Your task to perform on an android device: Show me the alarms in the clock app Image 0: 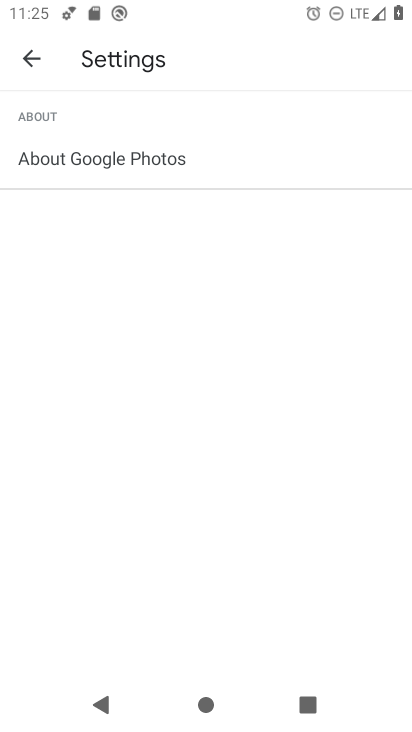
Step 0: press home button
Your task to perform on an android device: Show me the alarms in the clock app Image 1: 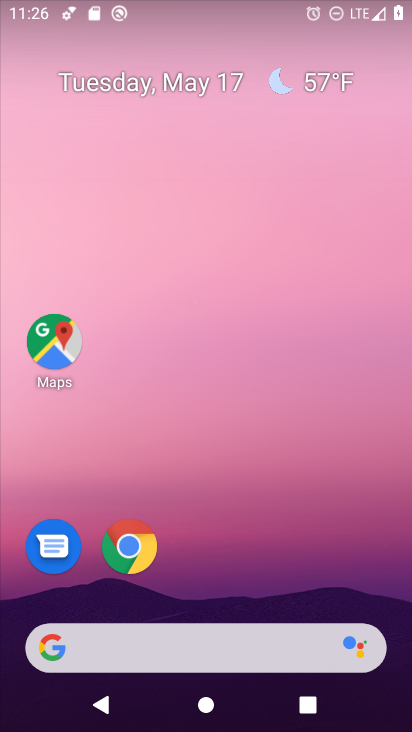
Step 1: drag from (307, 592) to (311, 4)
Your task to perform on an android device: Show me the alarms in the clock app Image 2: 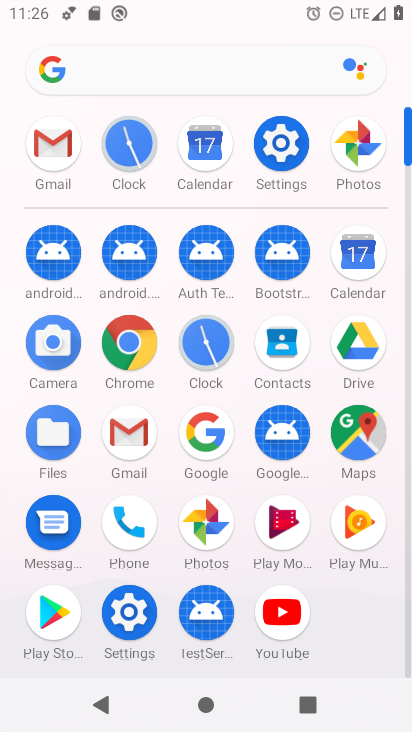
Step 2: click (131, 131)
Your task to perform on an android device: Show me the alarms in the clock app Image 3: 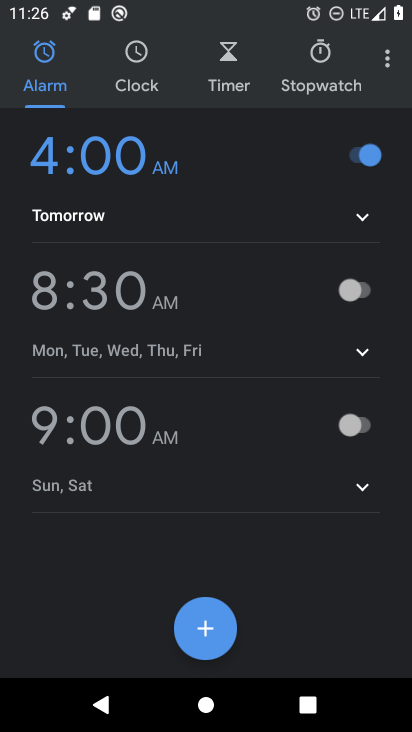
Step 3: task complete